Your task to perform on an android device: Open wifi settings Image 0: 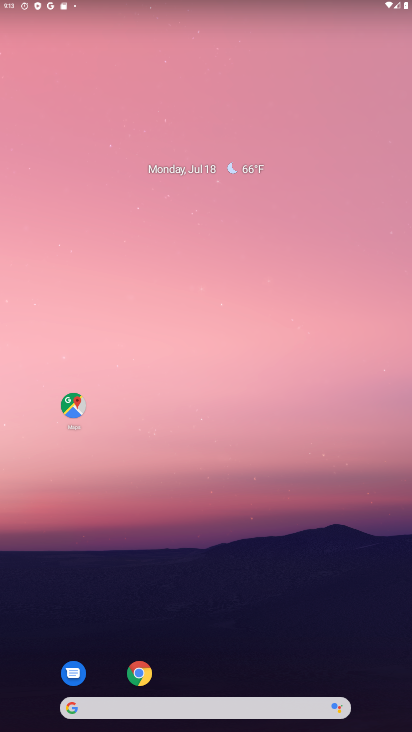
Step 0: drag from (199, 670) to (205, 144)
Your task to perform on an android device: Open wifi settings Image 1: 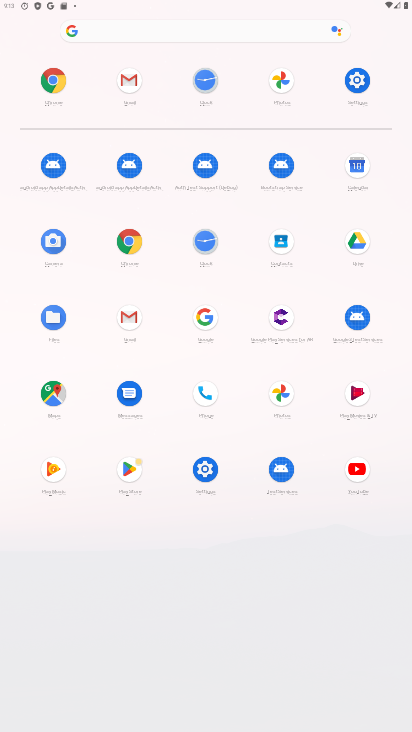
Step 1: click (360, 80)
Your task to perform on an android device: Open wifi settings Image 2: 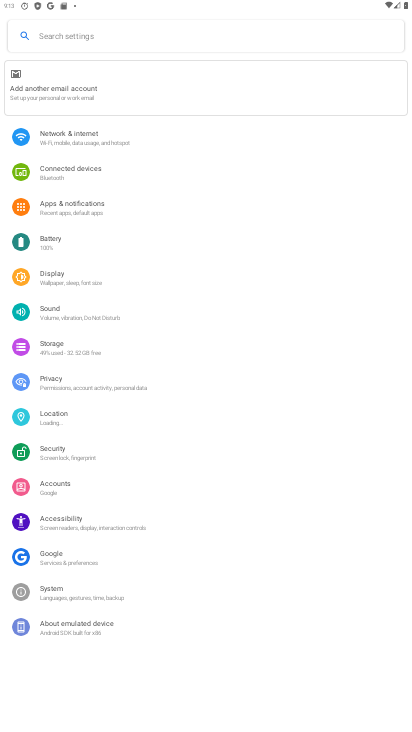
Step 2: click (98, 141)
Your task to perform on an android device: Open wifi settings Image 3: 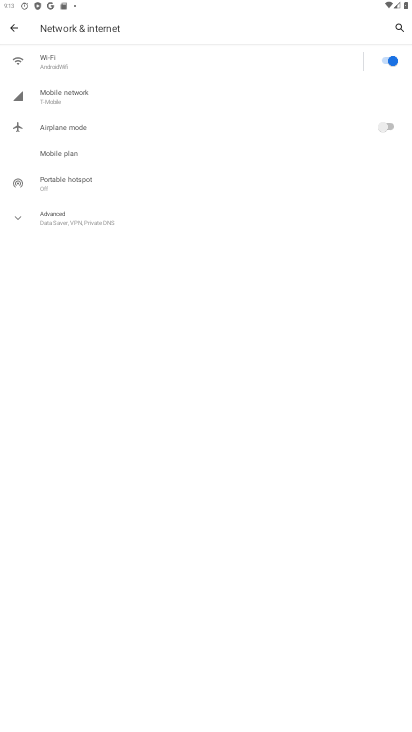
Step 3: click (114, 59)
Your task to perform on an android device: Open wifi settings Image 4: 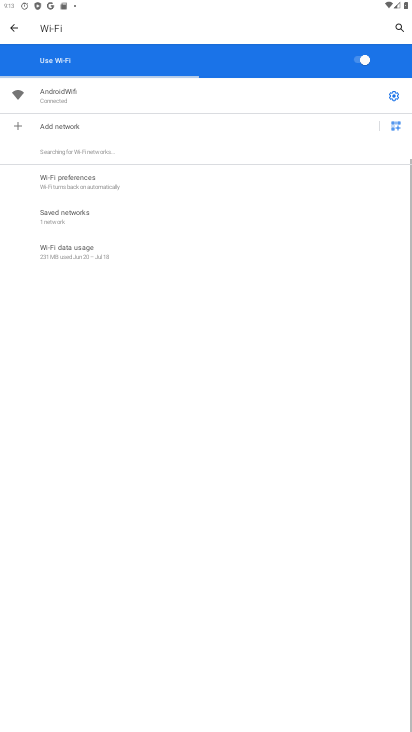
Step 4: click (256, 91)
Your task to perform on an android device: Open wifi settings Image 5: 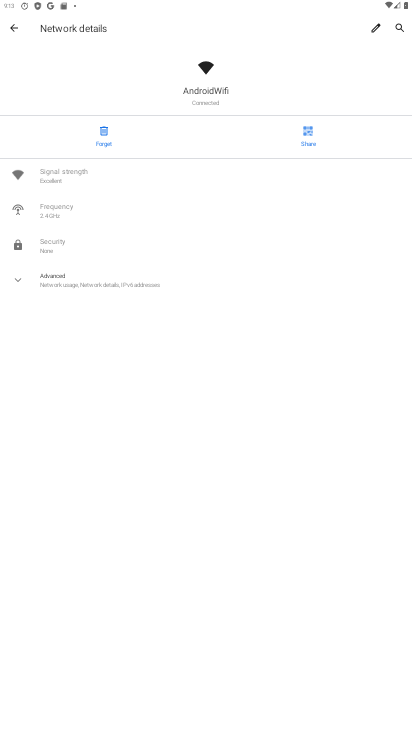
Step 5: task complete